Your task to perform on an android device: Open Google Chrome and click the shortcut for Amazon.com Image 0: 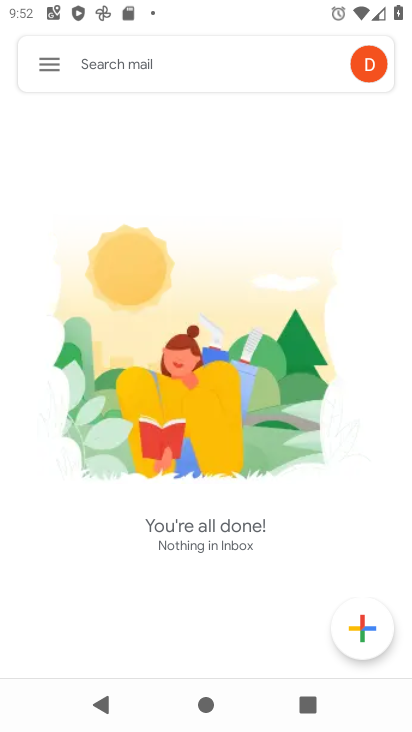
Step 0: press home button
Your task to perform on an android device: Open Google Chrome and click the shortcut for Amazon.com Image 1: 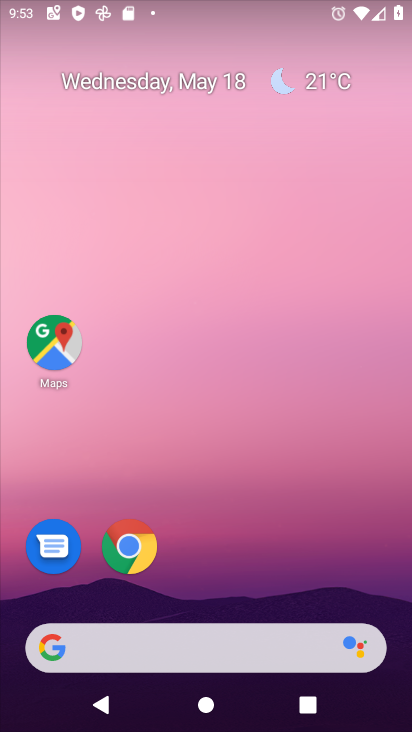
Step 1: drag from (335, 588) to (314, 1)
Your task to perform on an android device: Open Google Chrome and click the shortcut for Amazon.com Image 2: 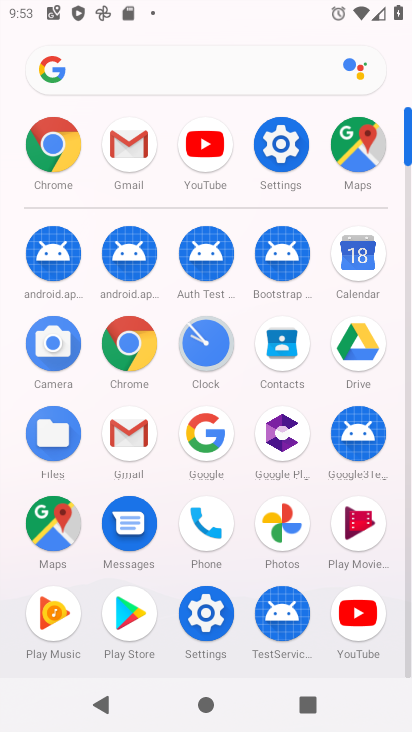
Step 2: click (52, 163)
Your task to perform on an android device: Open Google Chrome and click the shortcut for Amazon.com Image 3: 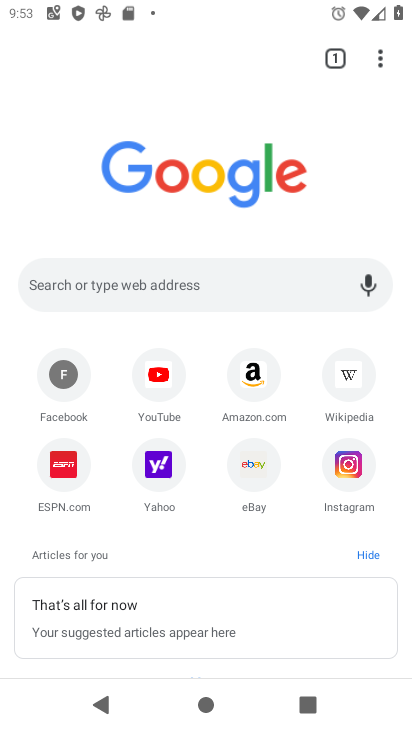
Step 3: click (255, 388)
Your task to perform on an android device: Open Google Chrome and click the shortcut for Amazon.com Image 4: 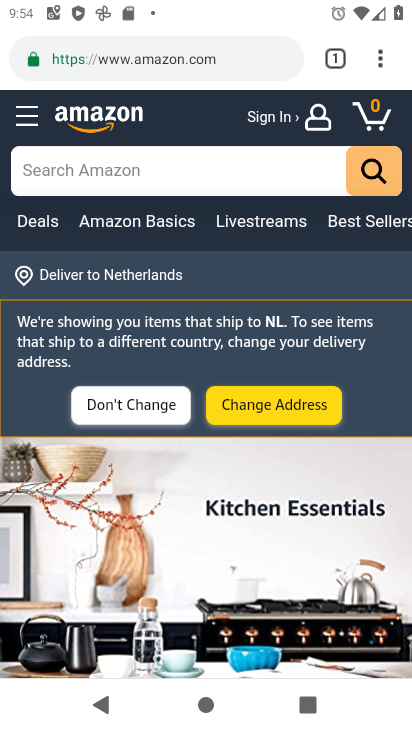
Step 4: task complete